Your task to perform on an android device: open chrome privacy settings Image 0: 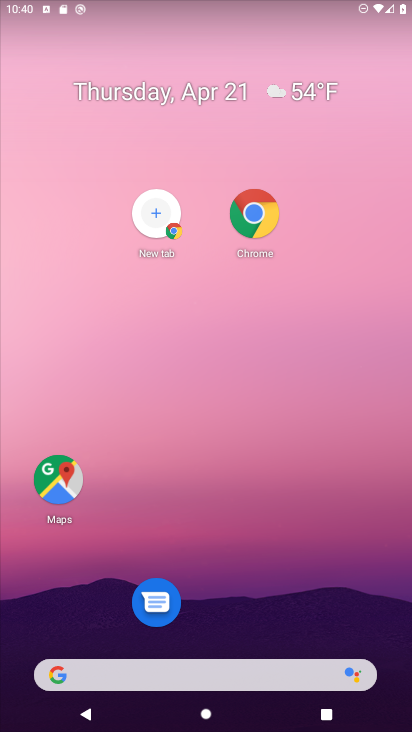
Step 0: click (251, 220)
Your task to perform on an android device: open chrome privacy settings Image 1: 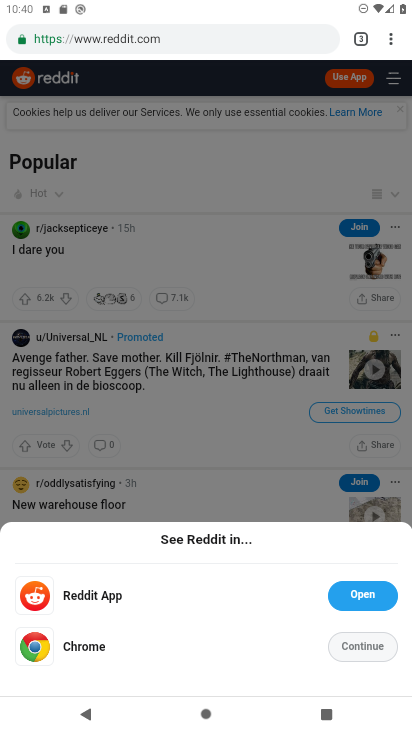
Step 1: click (400, 38)
Your task to perform on an android device: open chrome privacy settings Image 2: 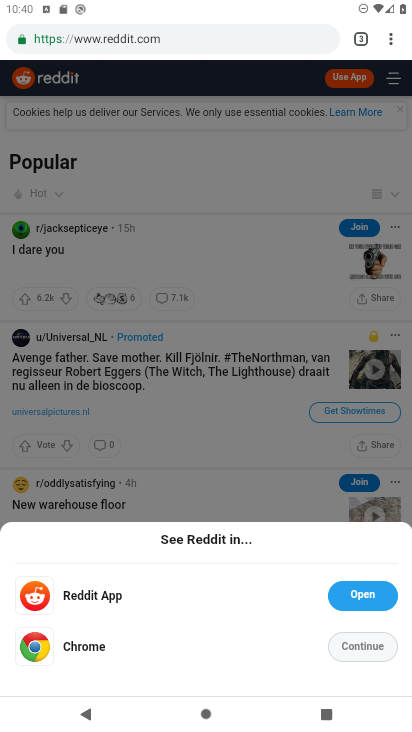
Step 2: click (388, 37)
Your task to perform on an android device: open chrome privacy settings Image 3: 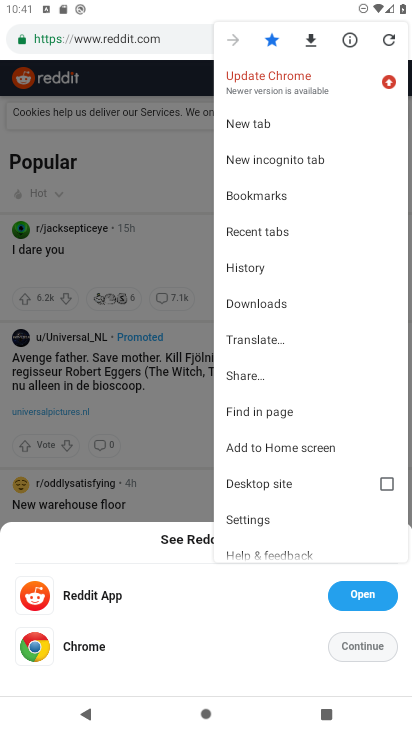
Step 3: click (274, 515)
Your task to perform on an android device: open chrome privacy settings Image 4: 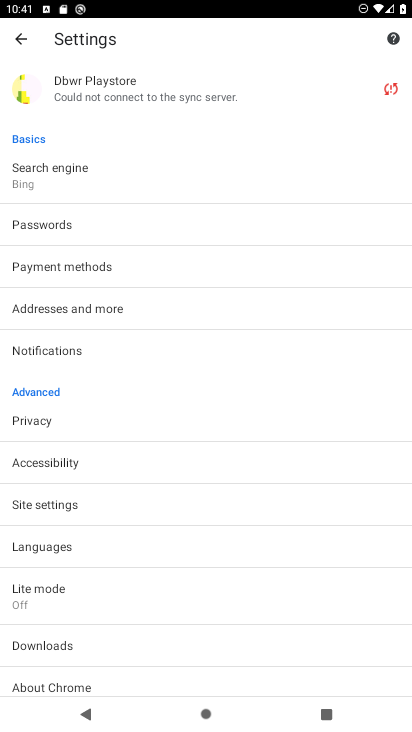
Step 4: click (62, 420)
Your task to perform on an android device: open chrome privacy settings Image 5: 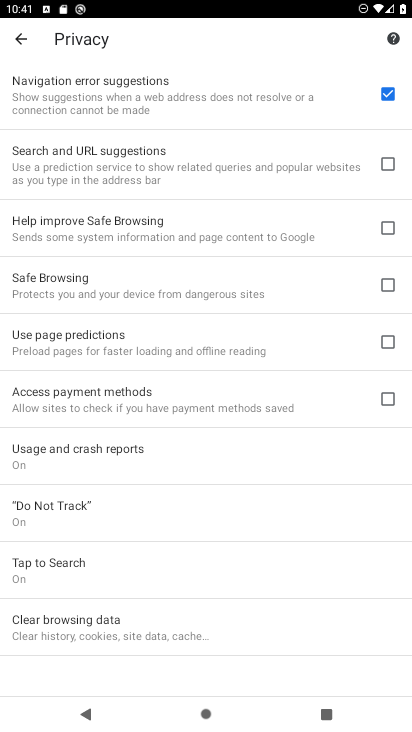
Step 5: task complete